Your task to perform on an android device: turn on wifi Image 0: 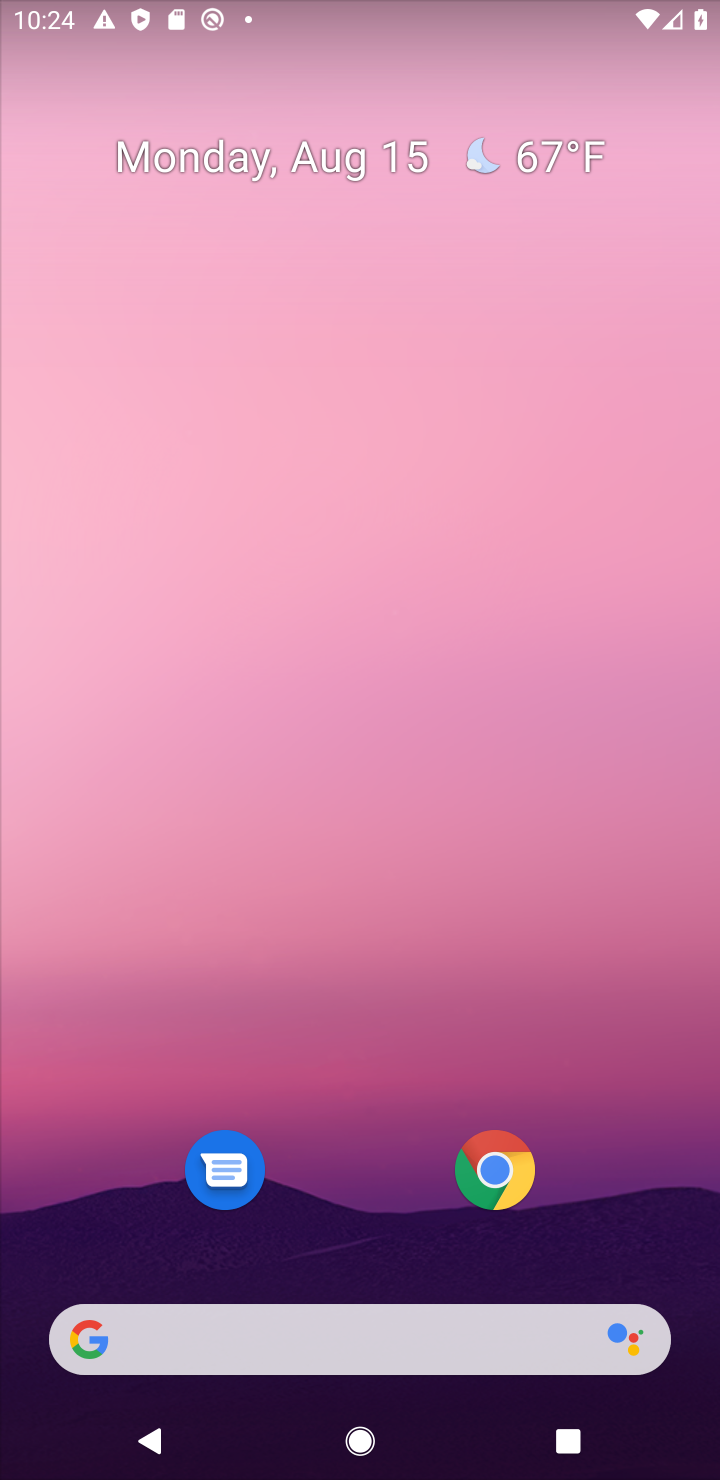
Step 0: press home button
Your task to perform on an android device: turn on wifi Image 1: 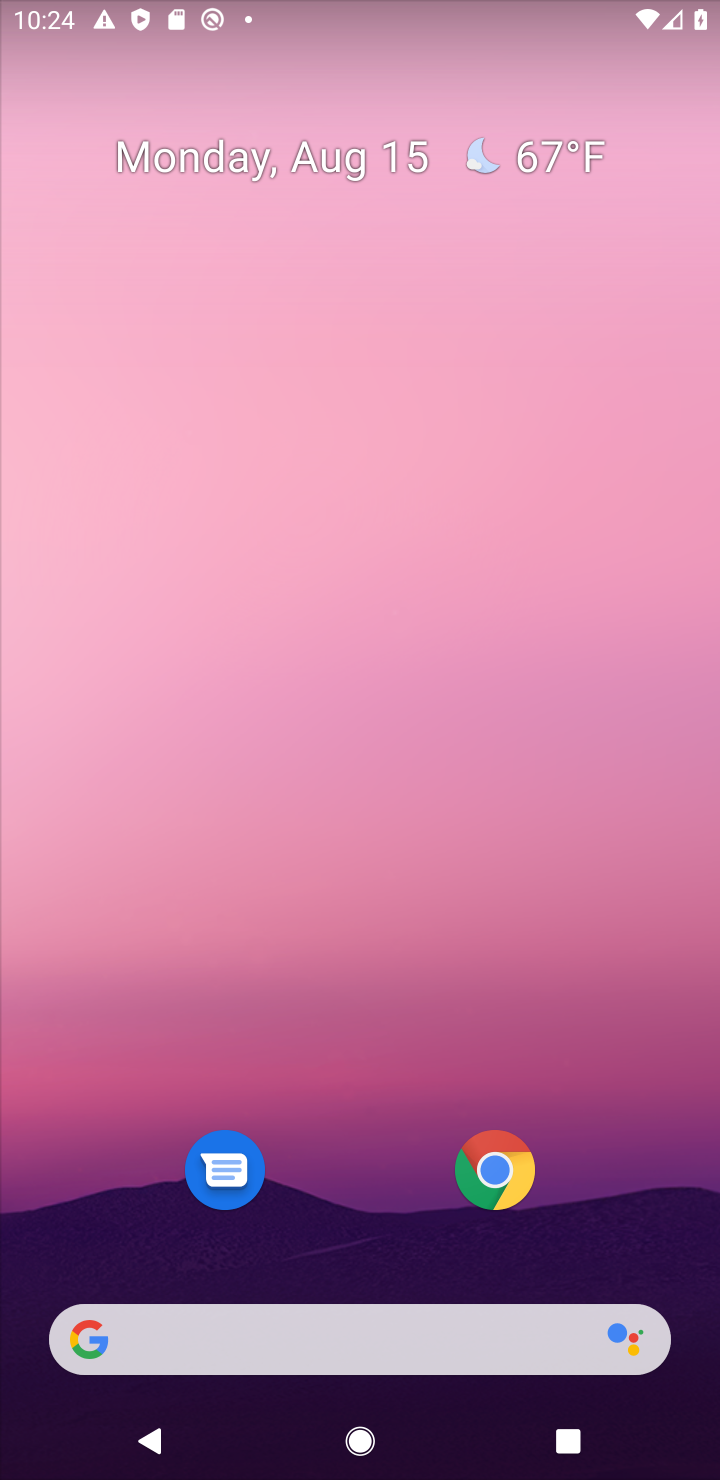
Step 1: task complete